Your task to perform on an android device: toggle data saver in the chrome app Image 0: 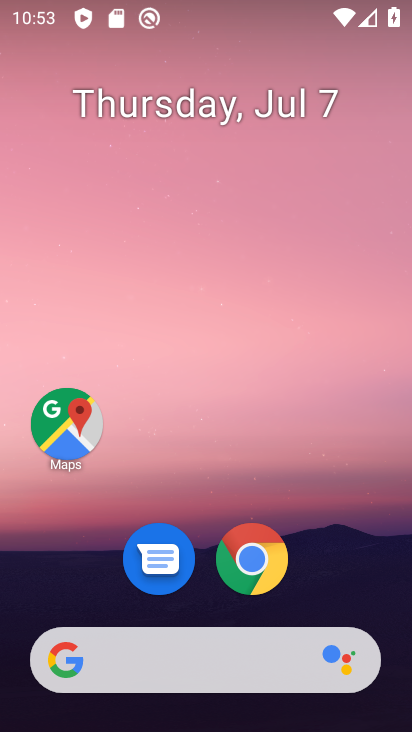
Step 0: drag from (386, 563) to (337, 178)
Your task to perform on an android device: toggle data saver in the chrome app Image 1: 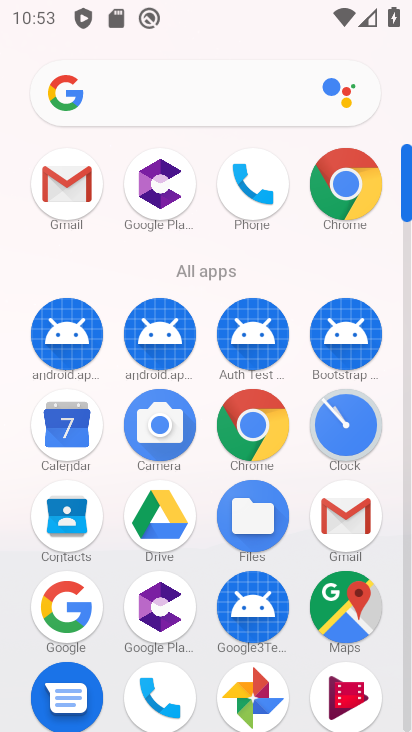
Step 1: click (275, 442)
Your task to perform on an android device: toggle data saver in the chrome app Image 2: 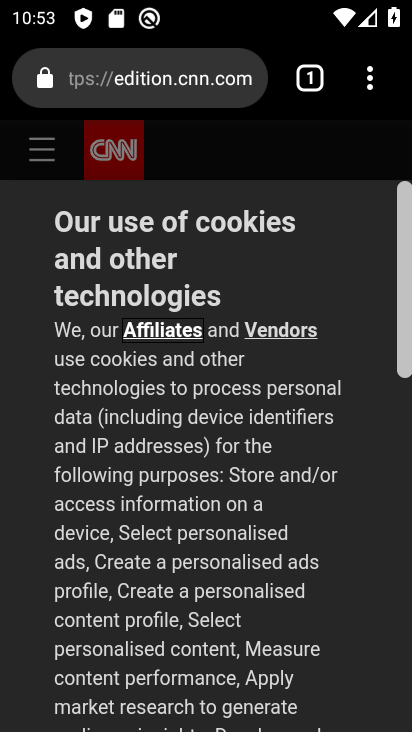
Step 2: click (368, 95)
Your task to perform on an android device: toggle data saver in the chrome app Image 3: 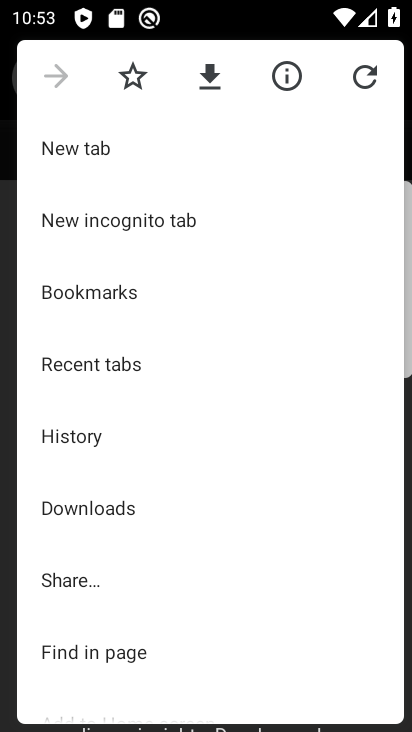
Step 3: drag from (318, 471) to (314, 316)
Your task to perform on an android device: toggle data saver in the chrome app Image 4: 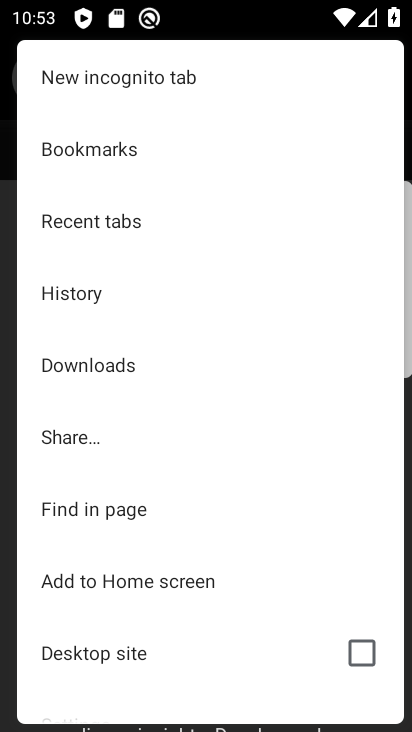
Step 4: drag from (301, 501) to (305, 313)
Your task to perform on an android device: toggle data saver in the chrome app Image 5: 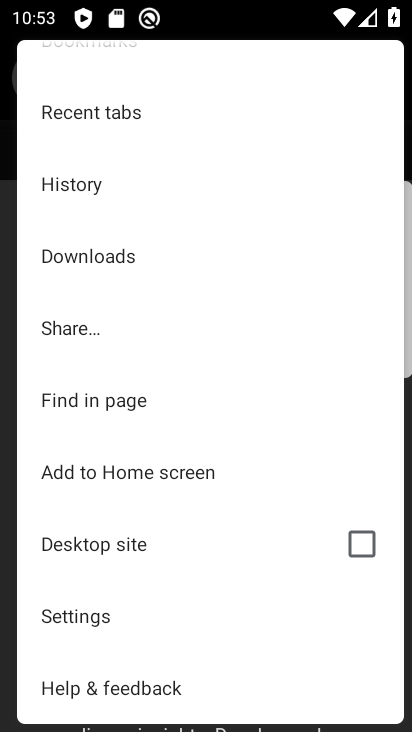
Step 5: click (188, 616)
Your task to perform on an android device: toggle data saver in the chrome app Image 6: 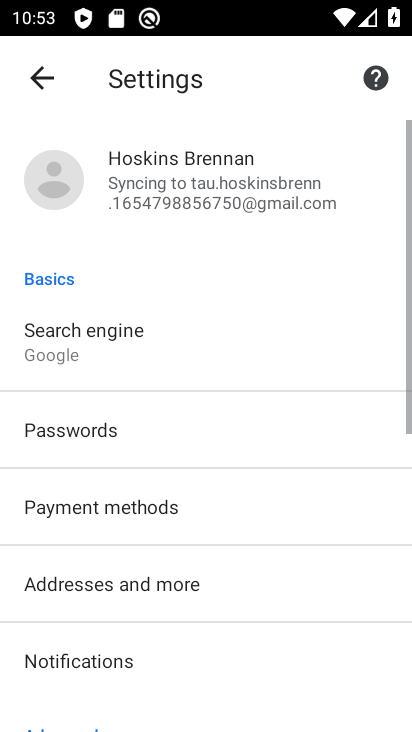
Step 6: drag from (275, 517) to (308, 295)
Your task to perform on an android device: toggle data saver in the chrome app Image 7: 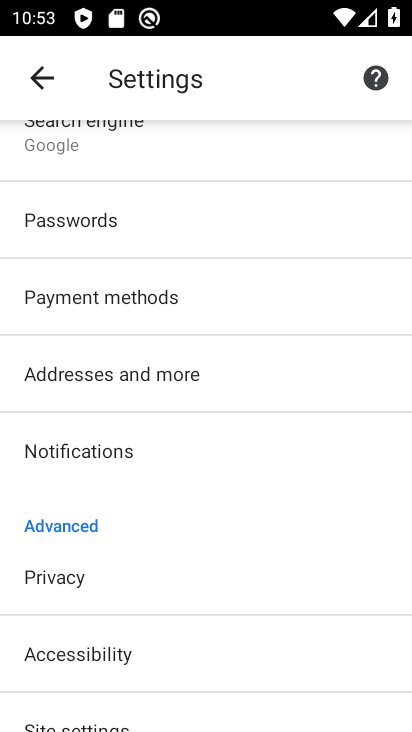
Step 7: drag from (289, 530) to (307, 349)
Your task to perform on an android device: toggle data saver in the chrome app Image 8: 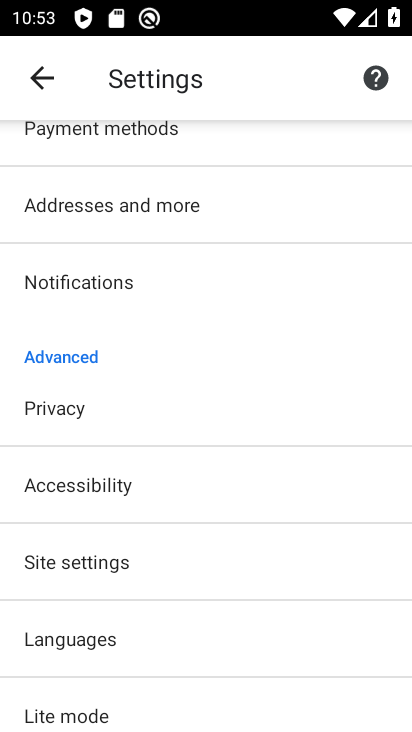
Step 8: drag from (289, 579) to (295, 385)
Your task to perform on an android device: toggle data saver in the chrome app Image 9: 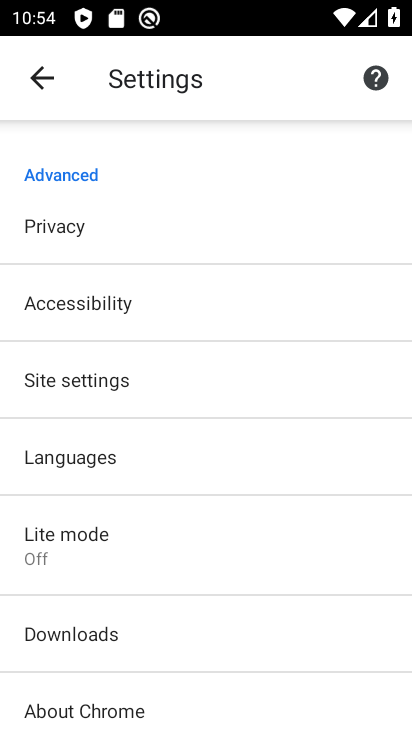
Step 9: drag from (300, 550) to (307, 379)
Your task to perform on an android device: toggle data saver in the chrome app Image 10: 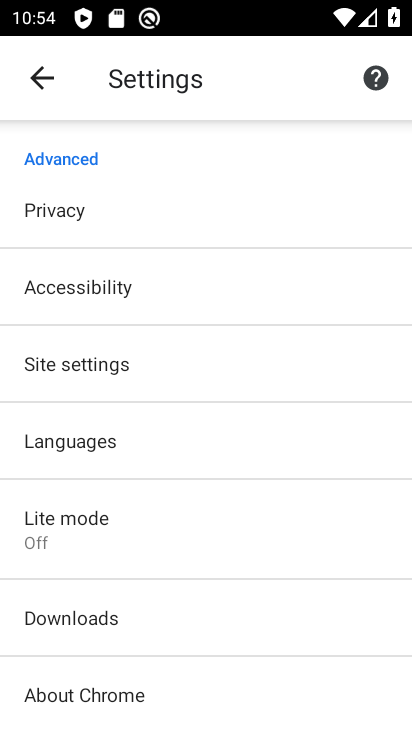
Step 10: drag from (280, 301) to (286, 405)
Your task to perform on an android device: toggle data saver in the chrome app Image 11: 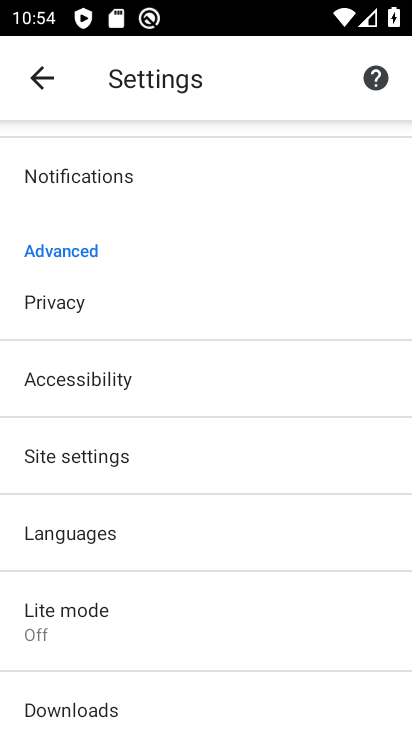
Step 11: click (251, 615)
Your task to perform on an android device: toggle data saver in the chrome app Image 12: 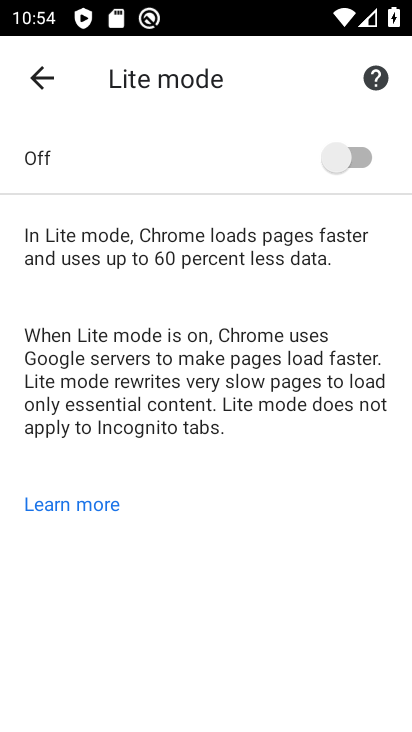
Step 12: click (327, 151)
Your task to perform on an android device: toggle data saver in the chrome app Image 13: 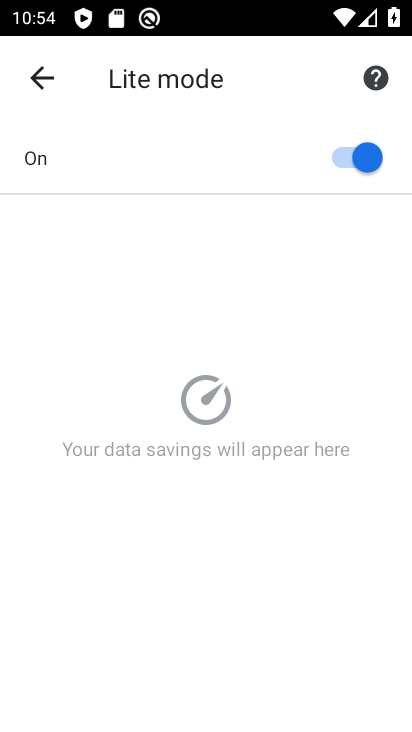
Step 13: task complete